Your task to perform on an android device: Go to Yahoo.com Image 0: 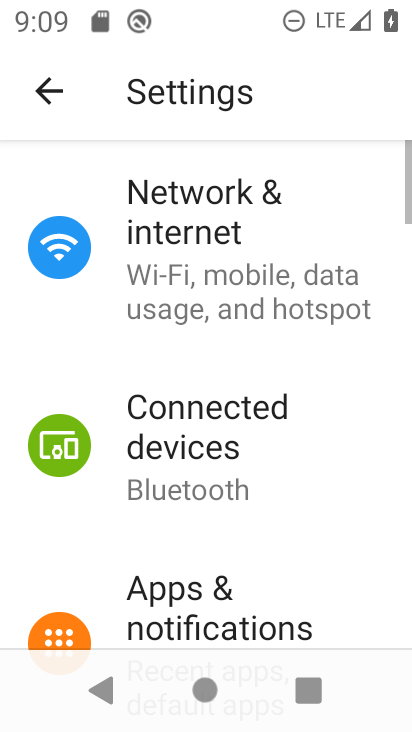
Step 0: press home button
Your task to perform on an android device: Go to Yahoo.com Image 1: 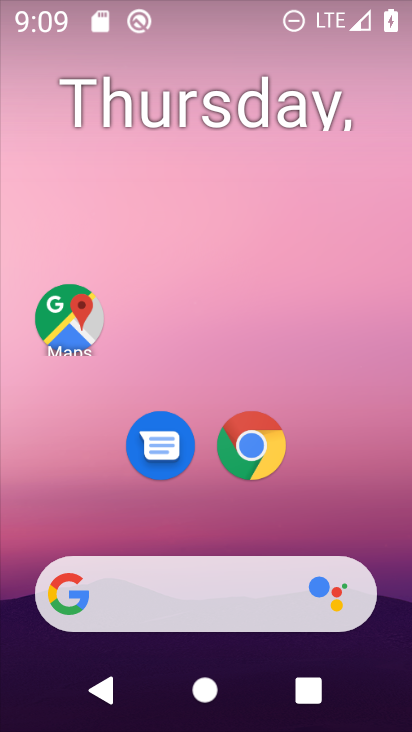
Step 1: drag from (379, 643) to (390, 511)
Your task to perform on an android device: Go to Yahoo.com Image 2: 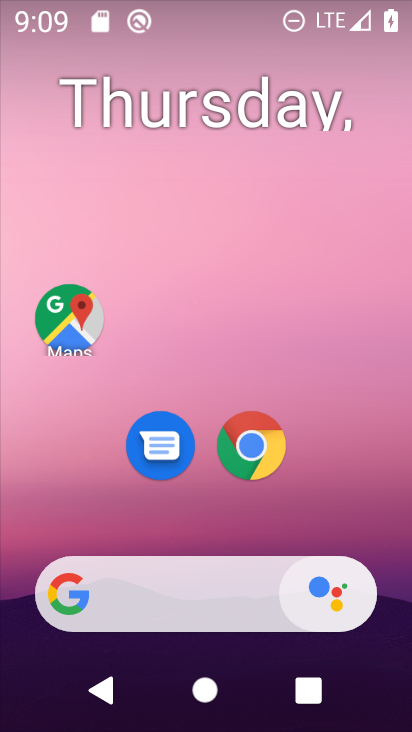
Step 2: drag from (334, 99) to (312, 25)
Your task to perform on an android device: Go to Yahoo.com Image 3: 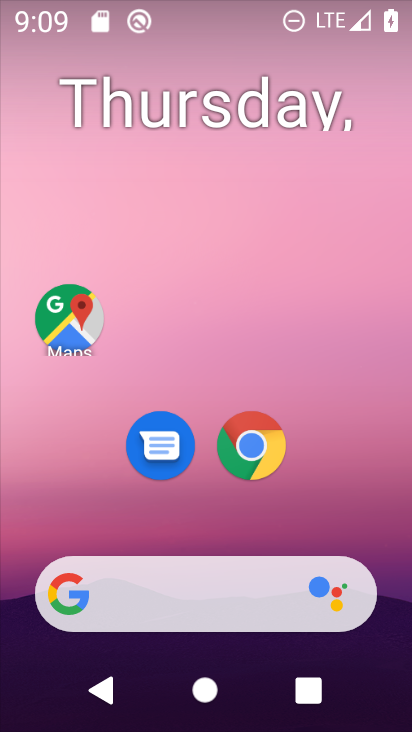
Step 3: drag from (386, 637) to (252, 105)
Your task to perform on an android device: Go to Yahoo.com Image 4: 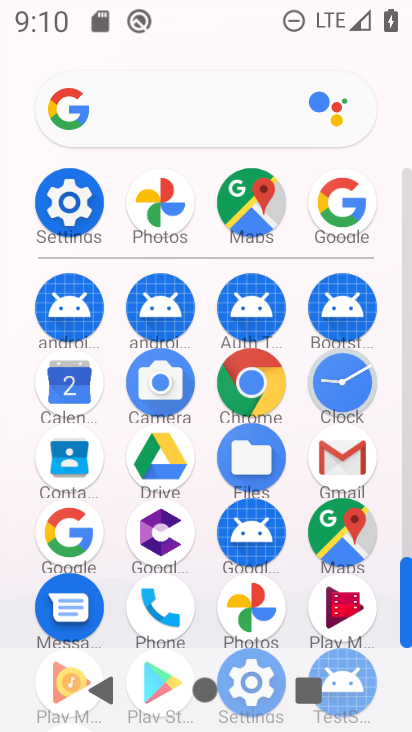
Step 4: click (69, 518)
Your task to perform on an android device: Go to Yahoo.com Image 5: 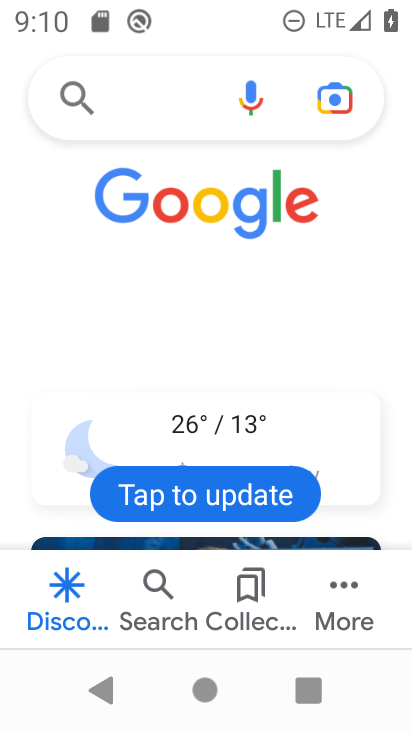
Step 5: click (169, 85)
Your task to perform on an android device: Go to Yahoo.com Image 6: 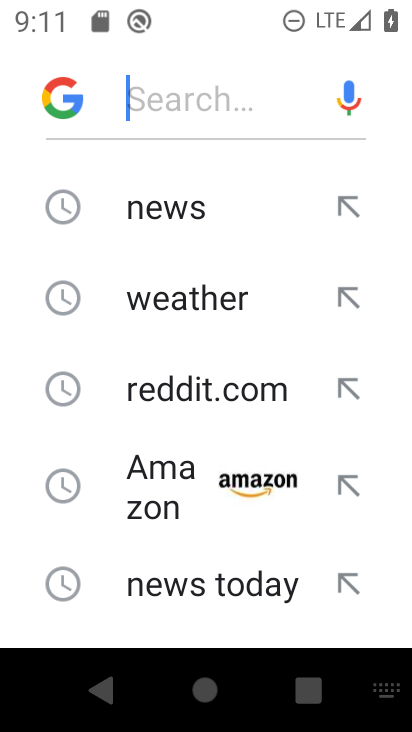
Step 6: drag from (214, 430) to (223, 138)
Your task to perform on an android device: Go to Yahoo.com Image 7: 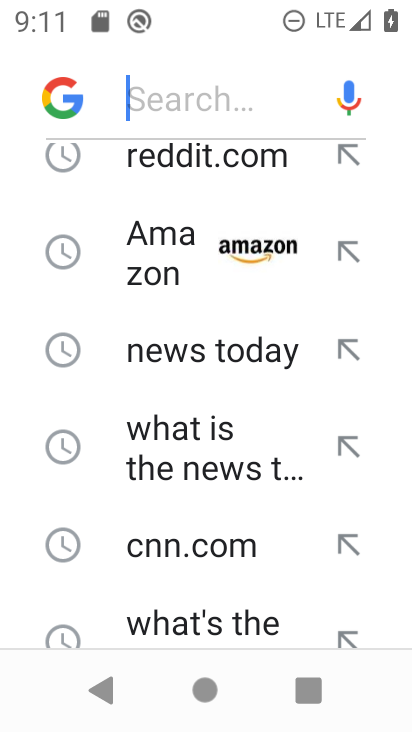
Step 7: click (200, 191)
Your task to perform on an android device: Go to Yahoo.com Image 8: 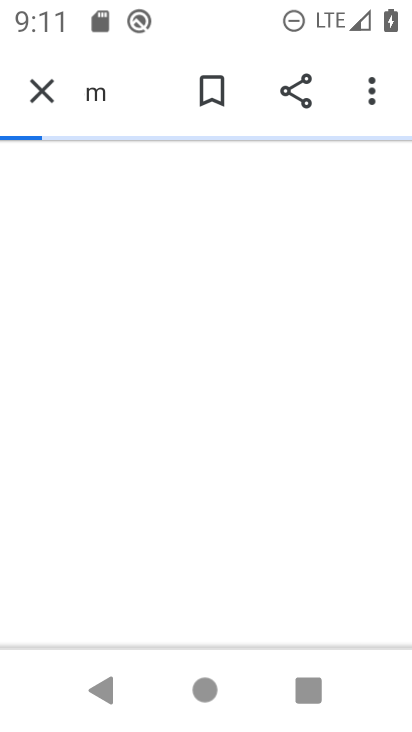
Step 8: press back button
Your task to perform on an android device: Go to Yahoo.com Image 9: 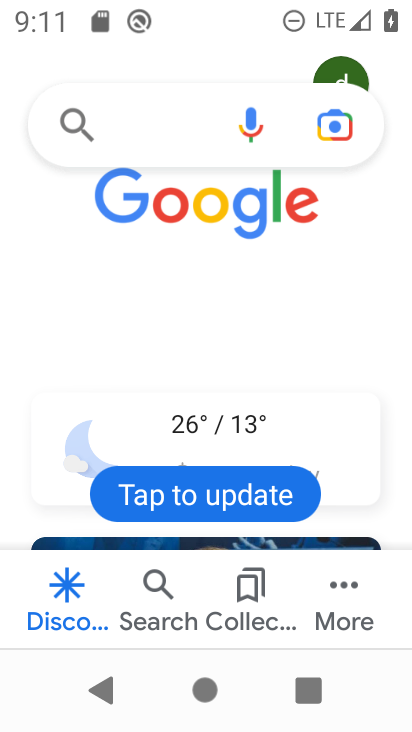
Step 9: click (148, 134)
Your task to perform on an android device: Go to Yahoo.com Image 10: 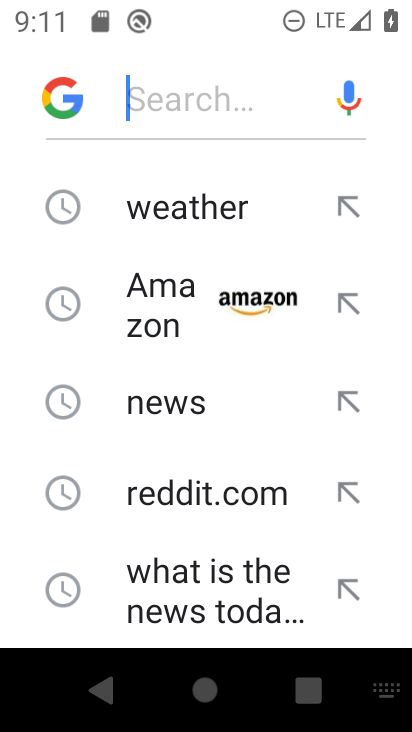
Step 10: type "yahoo.com"
Your task to perform on an android device: Go to Yahoo.com Image 11: 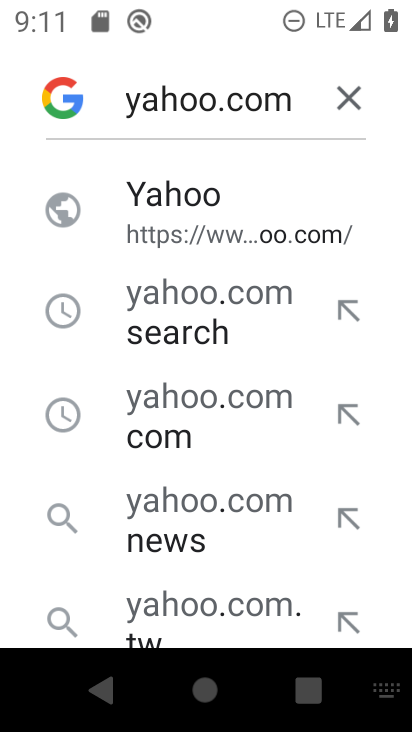
Step 11: click (199, 228)
Your task to perform on an android device: Go to Yahoo.com Image 12: 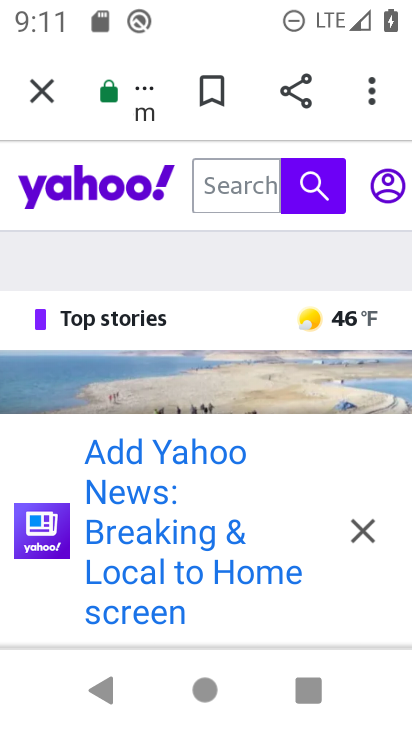
Step 12: task complete